Your task to perform on an android device: visit the assistant section in the google photos Image 0: 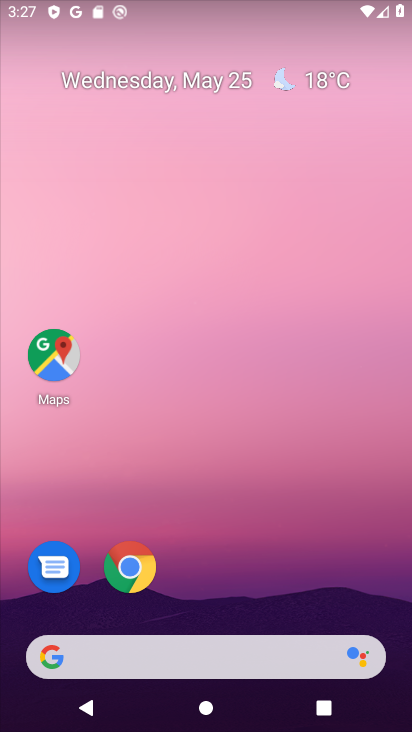
Step 0: drag from (349, 597) to (363, 238)
Your task to perform on an android device: visit the assistant section in the google photos Image 1: 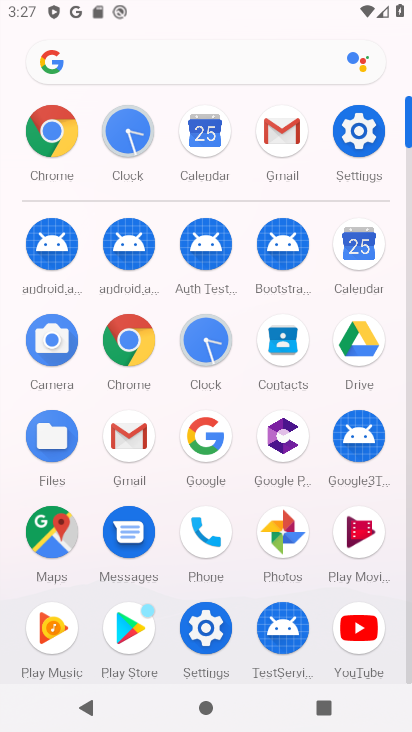
Step 1: click (266, 538)
Your task to perform on an android device: visit the assistant section in the google photos Image 2: 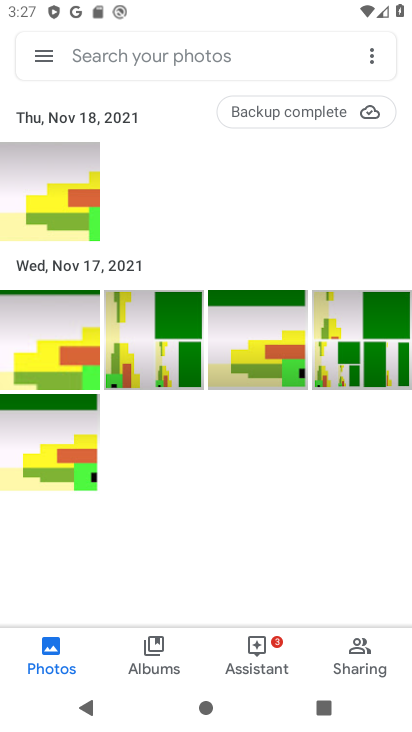
Step 2: click (258, 646)
Your task to perform on an android device: visit the assistant section in the google photos Image 3: 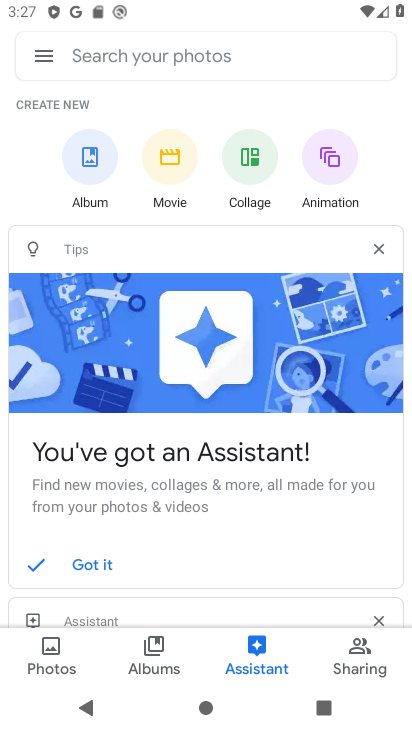
Step 3: task complete